Your task to perform on an android device: Open Reddit.com Image 0: 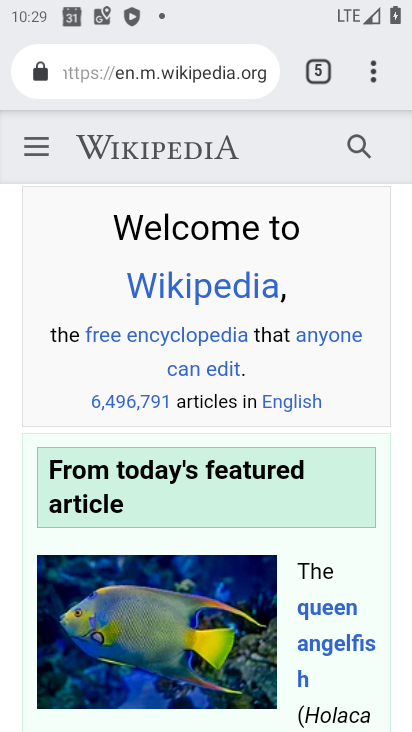
Step 0: press home button
Your task to perform on an android device: Open Reddit.com Image 1: 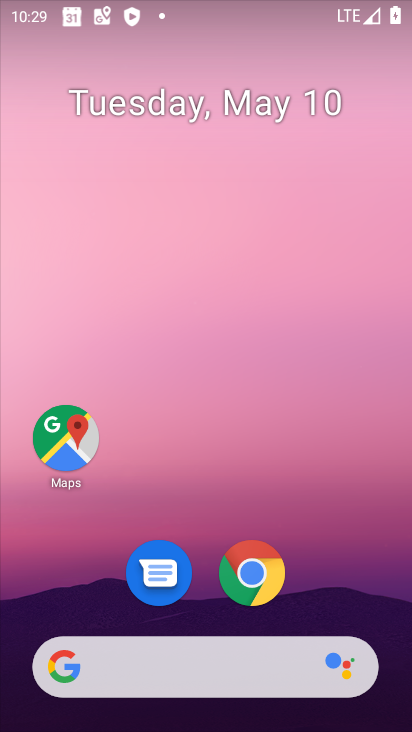
Step 1: click (254, 564)
Your task to perform on an android device: Open Reddit.com Image 2: 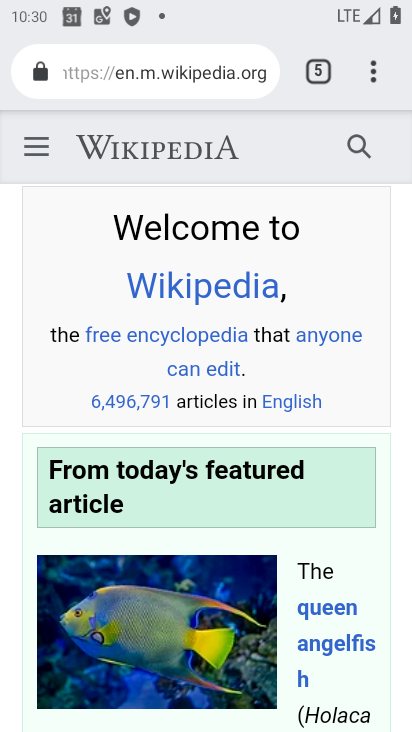
Step 2: click (373, 68)
Your task to perform on an android device: Open Reddit.com Image 3: 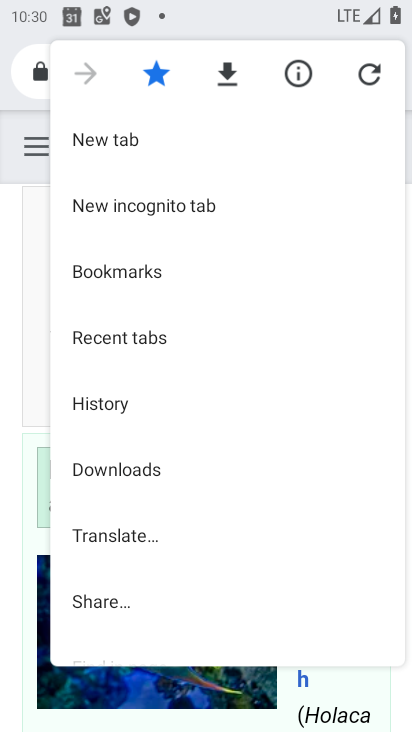
Step 3: click (119, 130)
Your task to perform on an android device: Open Reddit.com Image 4: 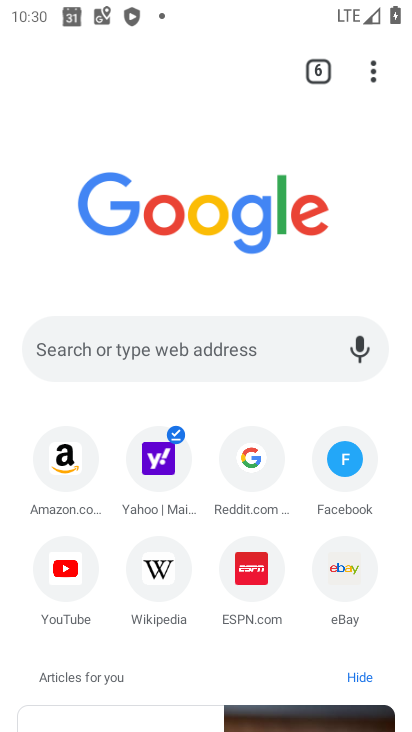
Step 4: click (146, 346)
Your task to perform on an android device: Open Reddit.com Image 5: 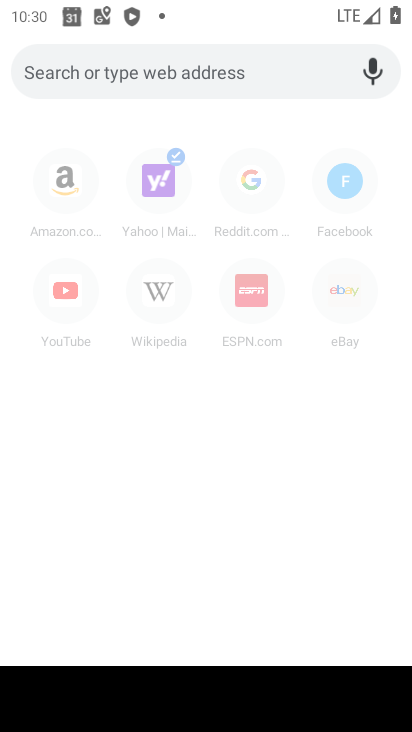
Step 5: type "reddit.com"
Your task to perform on an android device: Open Reddit.com Image 6: 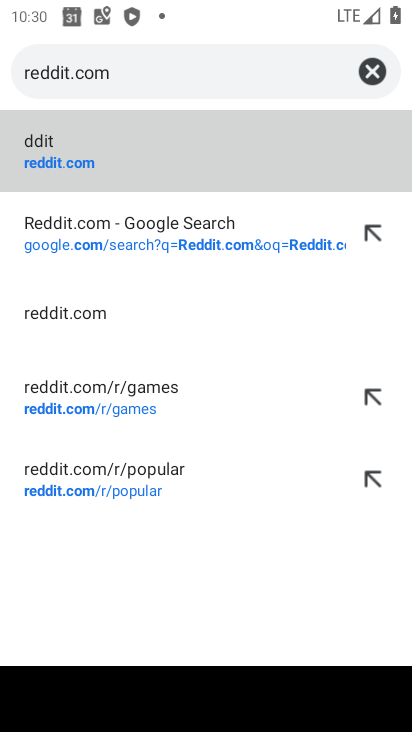
Step 6: click (127, 233)
Your task to perform on an android device: Open Reddit.com Image 7: 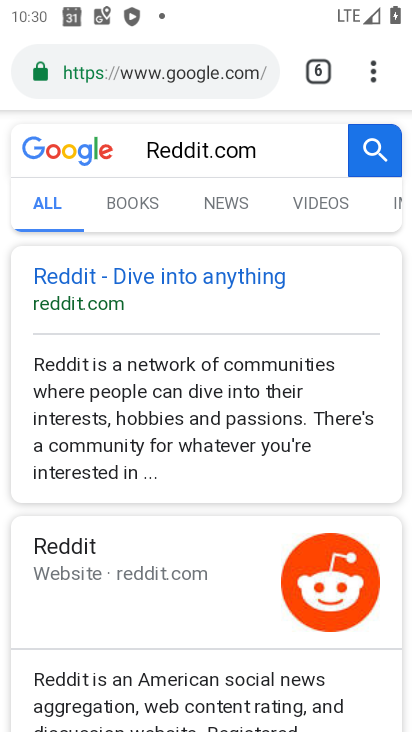
Step 7: task complete